Your task to perform on an android device: turn off airplane mode Image 0: 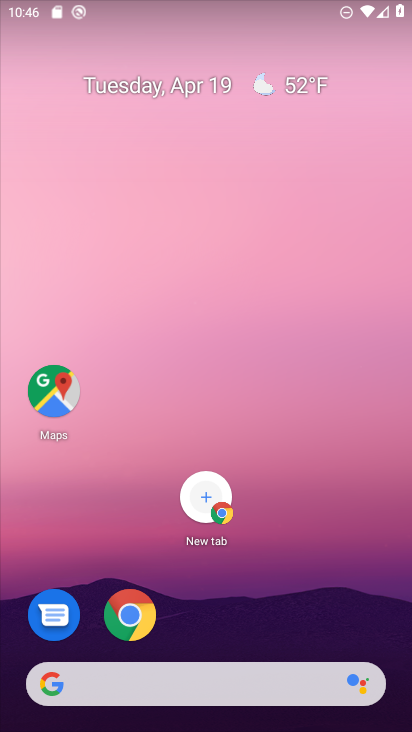
Step 0: drag from (220, 10) to (138, 632)
Your task to perform on an android device: turn off airplane mode Image 1: 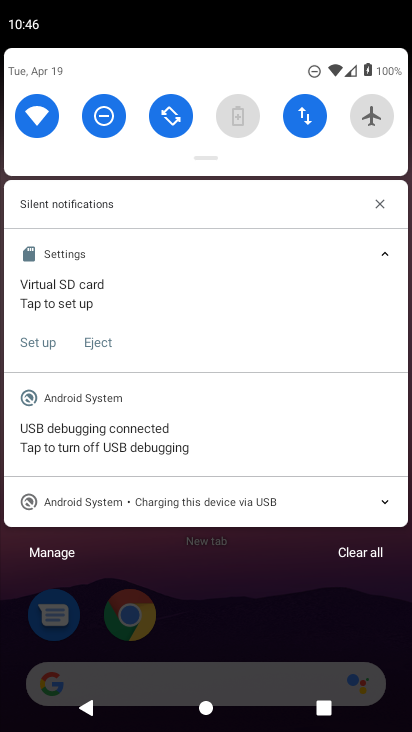
Step 1: drag from (212, 65) to (218, 672)
Your task to perform on an android device: turn off airplane mode Image 2: 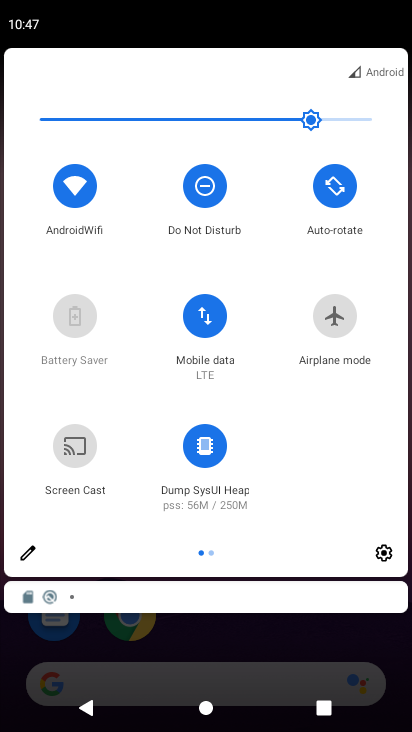
Step 2: click (387, 553)
Your task to perform on an android device: turn off airplane mode Image 3: 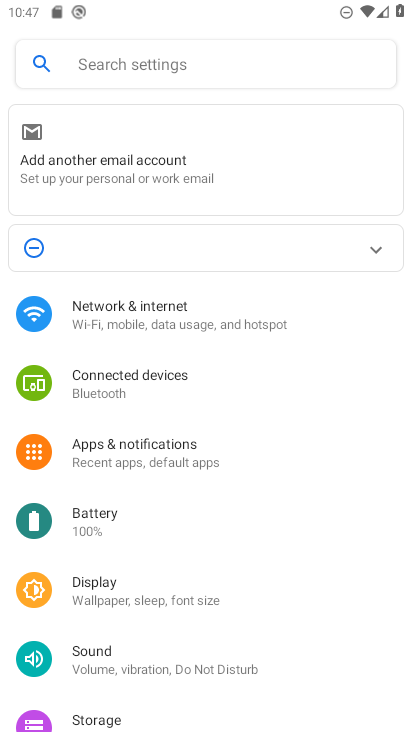
Step 3: click (171, 309)
Your task to perform on an android device: turn off airplane mode Image 4: 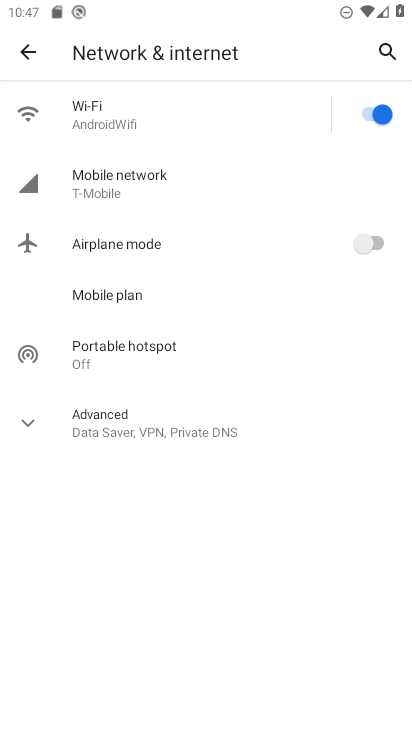
Step 4: task complete